Your task to perform on an android device: Open internet settings Image 0: 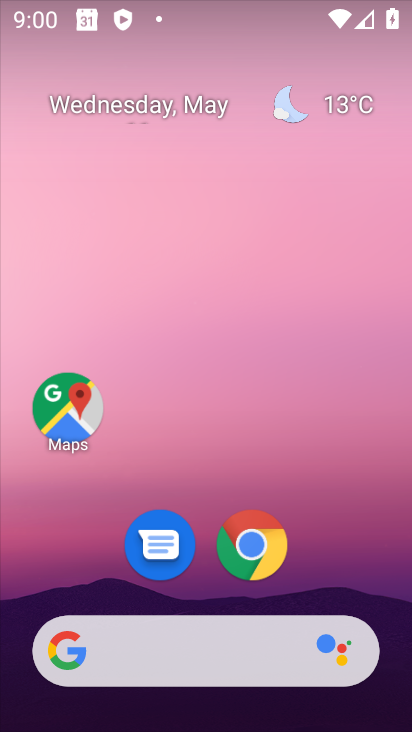
Step 0: drag from (308, 514) to (234, 0)
Your task to perform on an android device: Open internet settings Image 1: 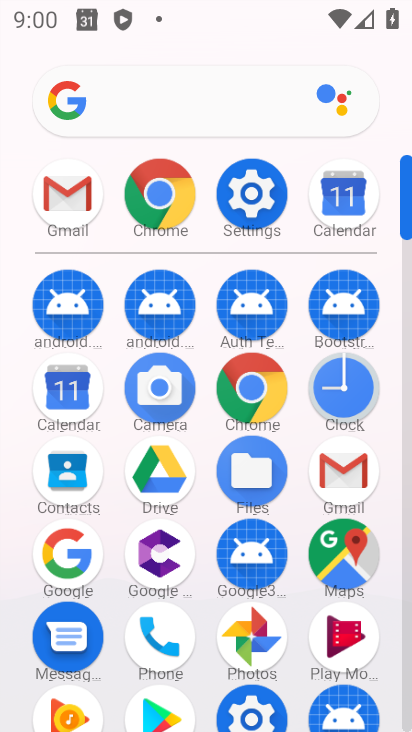
Step 1: drag from (0, 565) to (35, 225)
Your task to perform on an android device: Open internet settings Image 2: 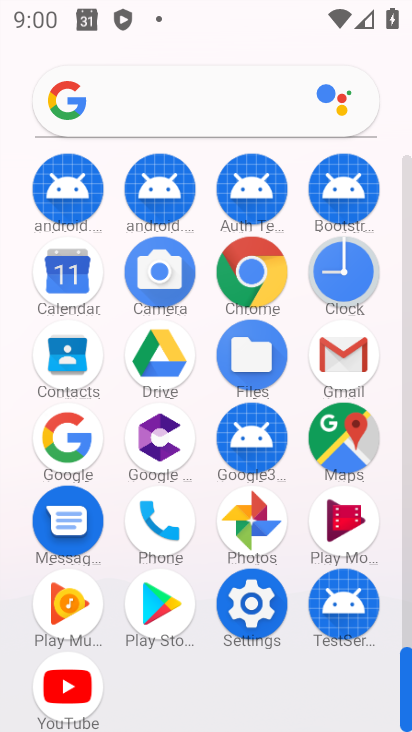
Step 2: click (249, 601)
Your task to perform on an android device: Open internet settings Image 3: 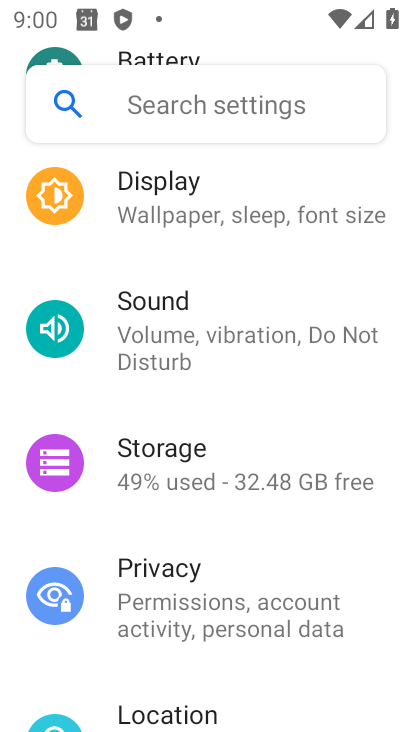
Step 3: drag from (243, 410) to (252, 586)
Your task to perform on an android device: Open internet settings Image 4: 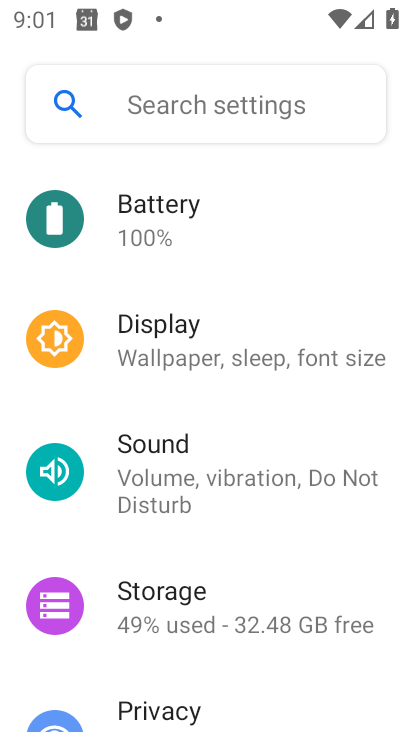
Step 4: drag from (243, 209) to (248, 618)
Your task to perform on an android device: Open internet settings Image 5: 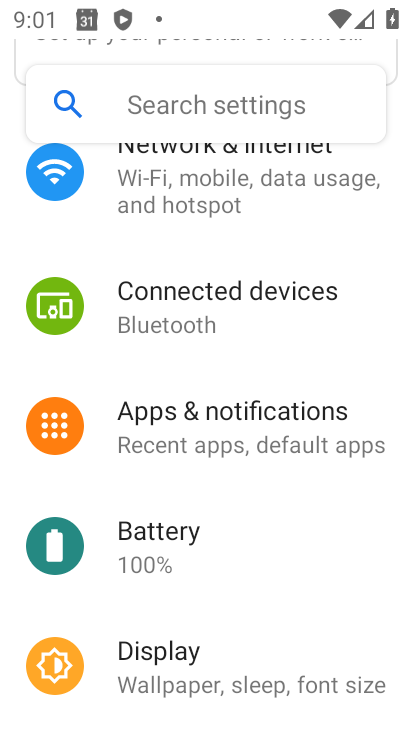
Step 5: drag from (257, 246) to (278, 623)
Your task to perform on an android device: Open internet settings Image 6: 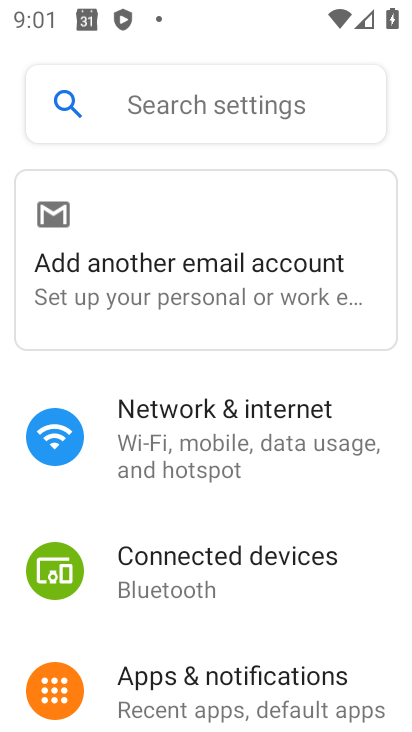
Step 6: click (247, 431)
Your task to perform on an android device: Open internet settings Image 7: 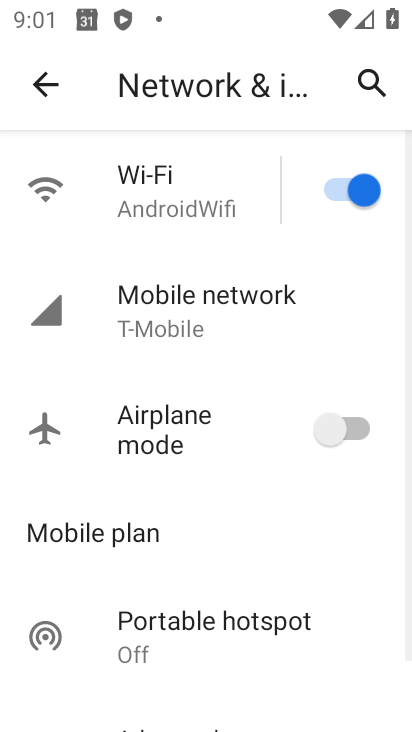
Step 7: drag from (246, 535) to (227, 183)
Your task to perform on an android device: Open internet settings Image 8: 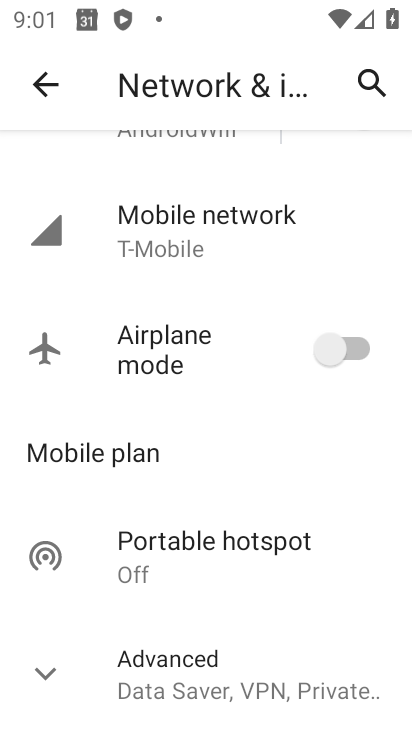
Step 8: drag from (212, 583) to (199, 359)
Your task to perform on an android device: Open internet settings Image 9: 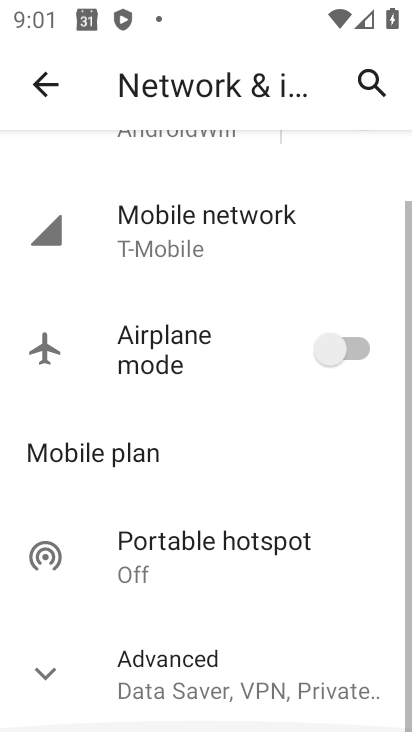
Step 9: click (27, 675)
Your task to perform on an android device: Open internet settings Image 10: 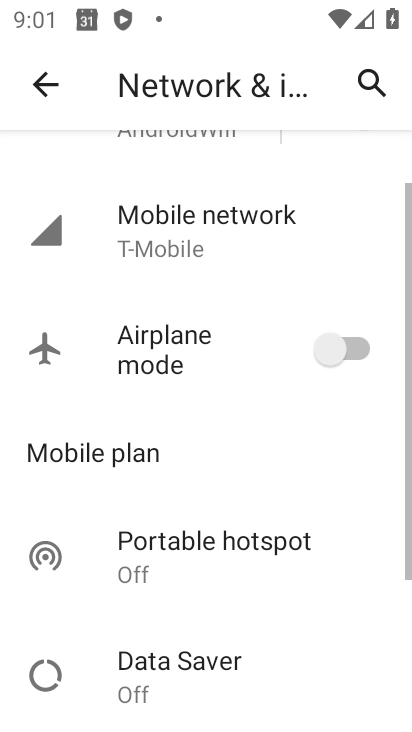
Step 10: task complete